Your task to perform on an android device: Go to ESPN.com Image 0: 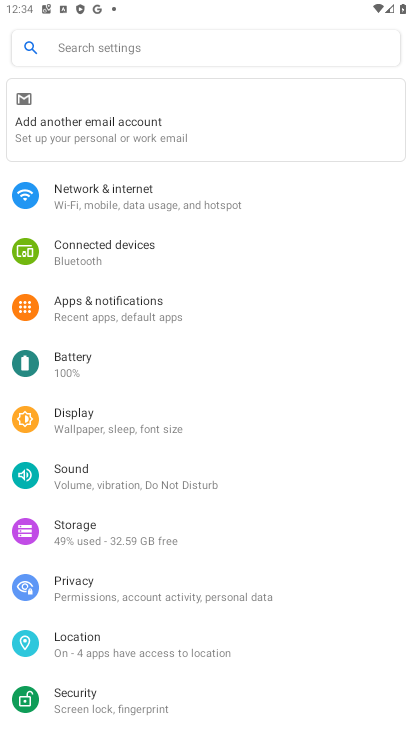
Step 0: press home button
Your task to perform on an android device: Go to ESPN.com Image 1: 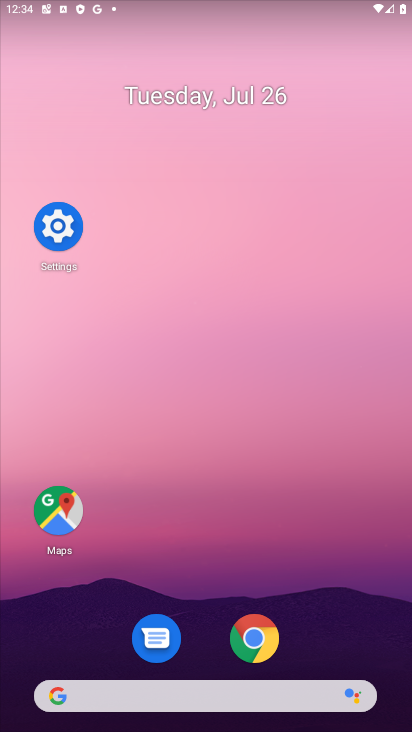
Step 1: click (250, 623)
Your task to perform on an android device: Go to ESPN.com Image 2: 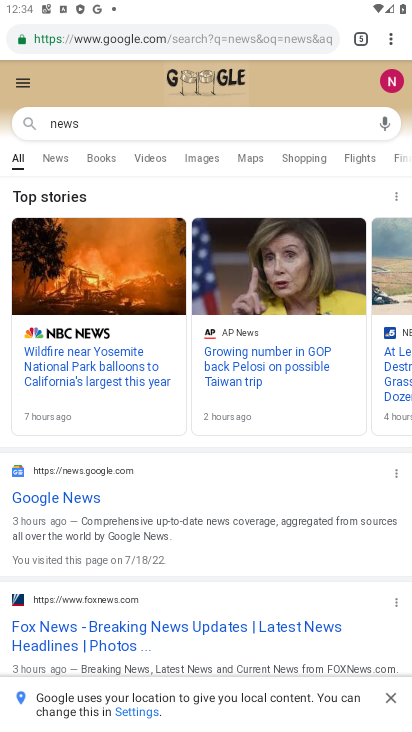
Step 2: click (359, 35)
Your task to perform on an android device: Go to ESPN.com Image 3: 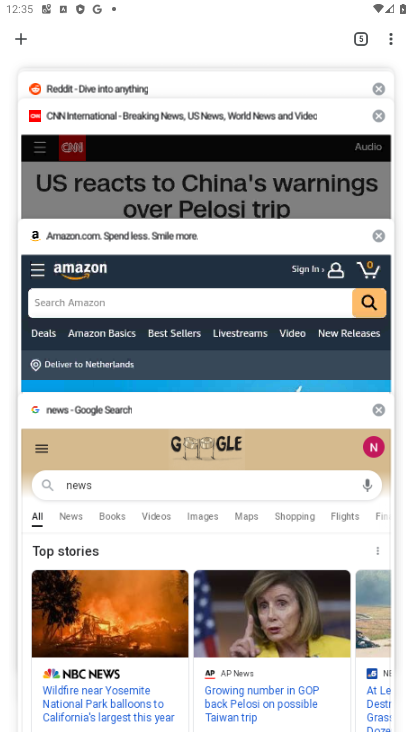
Step 3: drag from (110, 116) to (160, 496)
Your task to perform on an android device: Go to ESPN.com Image 4: 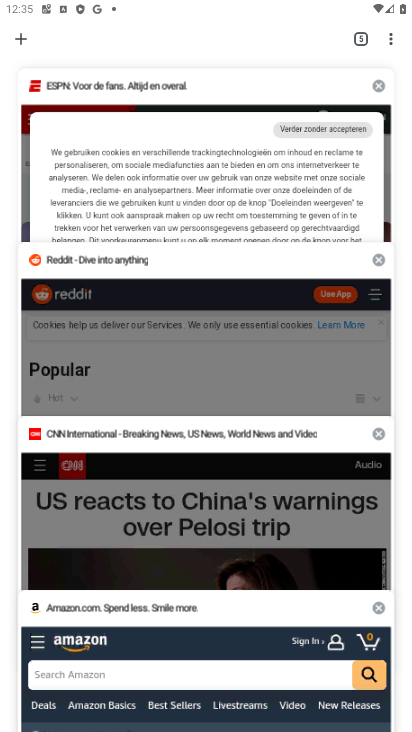
Step 4: click (120, 94)
Your task to perform on an android device: Go to ESPN.com Image 5: 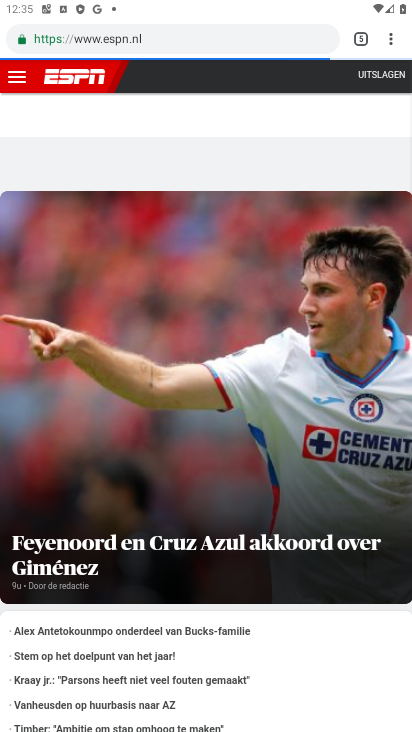
Step 5: task complete